Your task to perform on an android device: Open eBay Image 0: 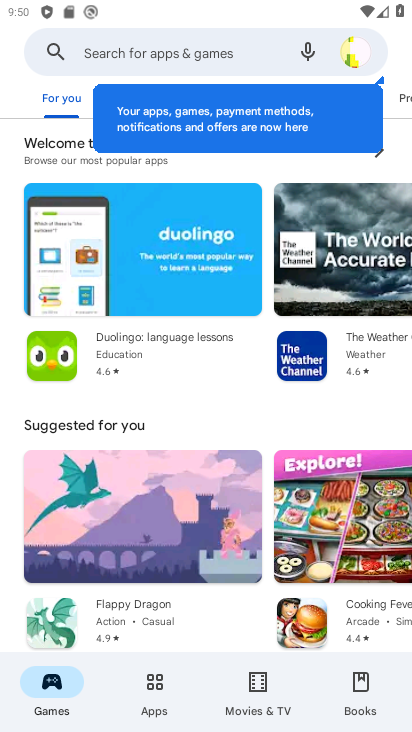
Step 0: press home button
Your task to perform on an android device: Open eBay Image 1: 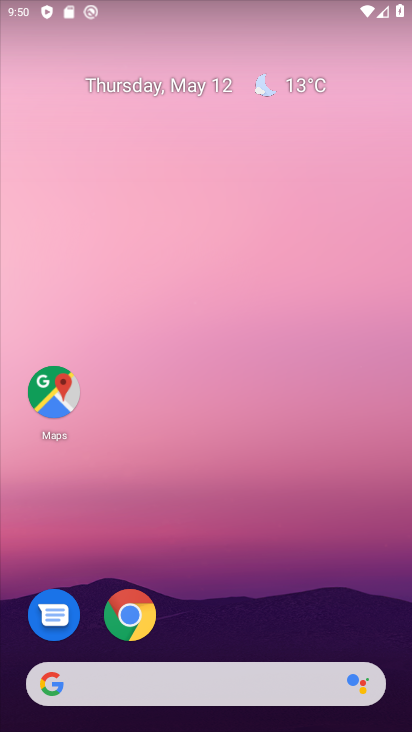
Step 1: drag from (358, 412) to (400, 329)
Your task to perform on an android device: Open eBay Image 2: 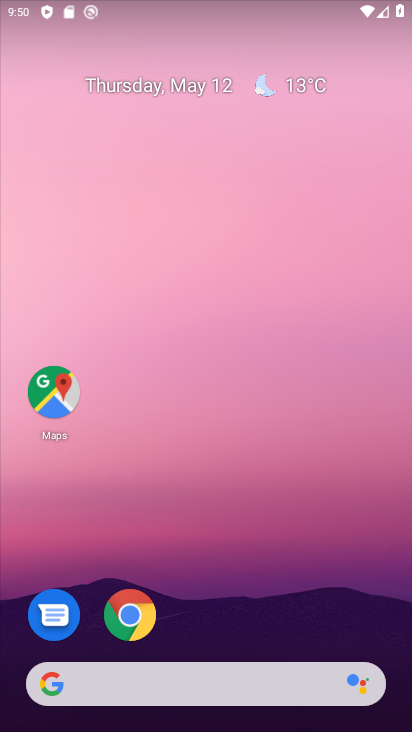
Step 2: drag from (304, 606) to (288, 6)
Your task to perform on an android device: Open eBay Image 3: 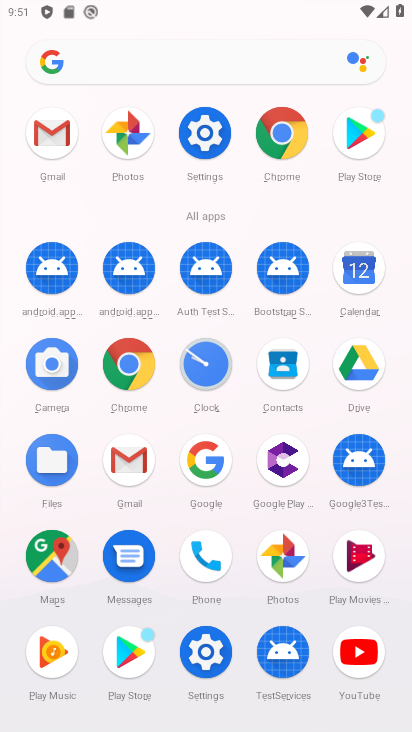
Step 3: click (293, 167)
Your task to perform on an android device: Open eBay Image 4: 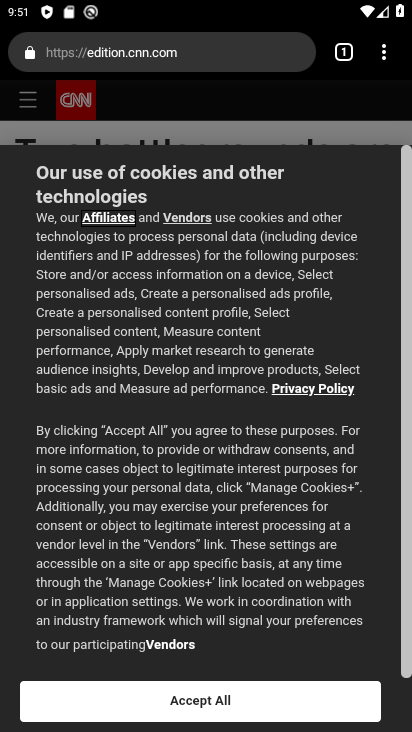
Step 4: task complete